Your task to perform on an android device: toggle notification dots Image 0: 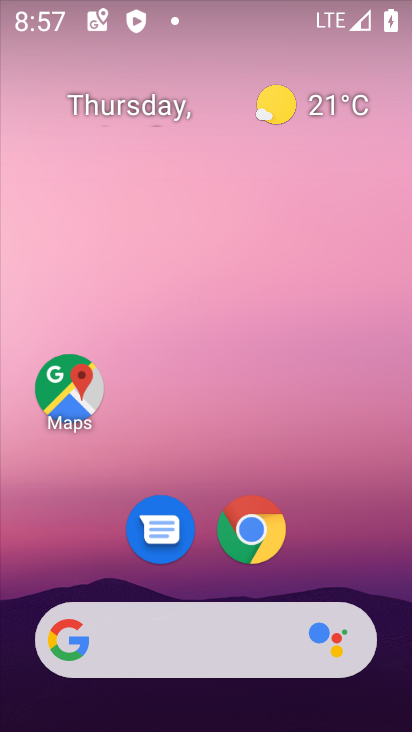
Step 0: drag from (185, 709) to (307, 35)
Your task to perform on an android device: toggle notification dots Image 1: 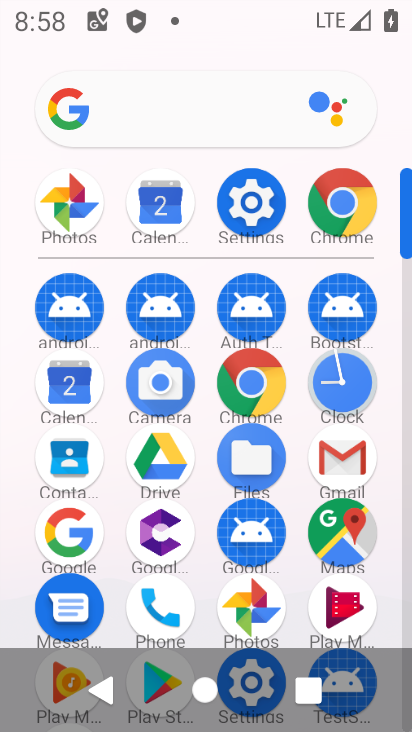
Step 1: click (234, 203)
Your task to perform on an android device: toggle notification dots Image 2: 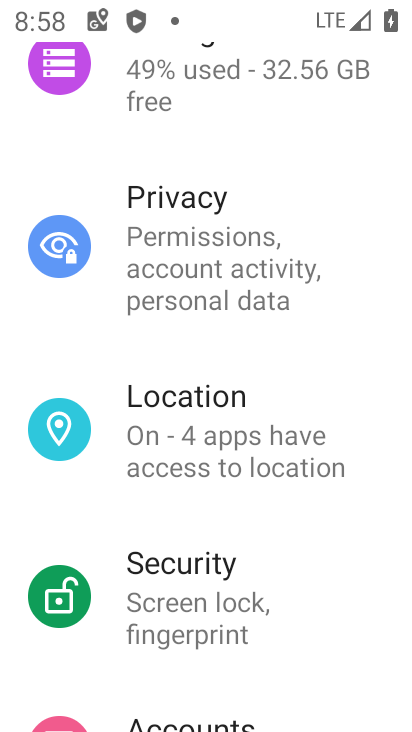
Step 2: drag from (256, 564) to (214, 57)
Your task to perform on an android device: toggle notification dots Image 3: 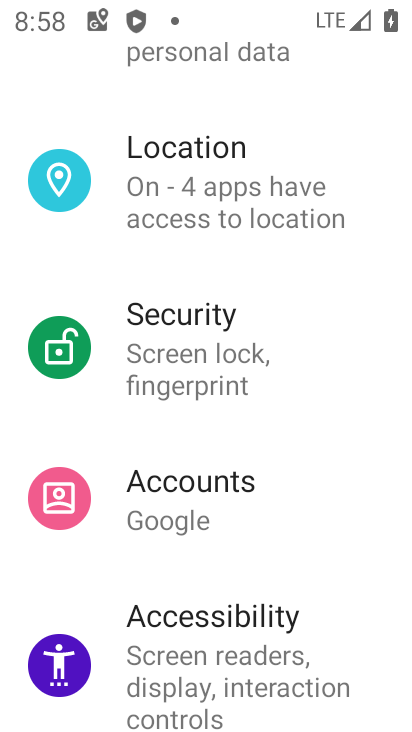
Step 3: drag from (273, 155) to (204, 618)
Your task to perform on an android device: toggle notification dots Image 4: 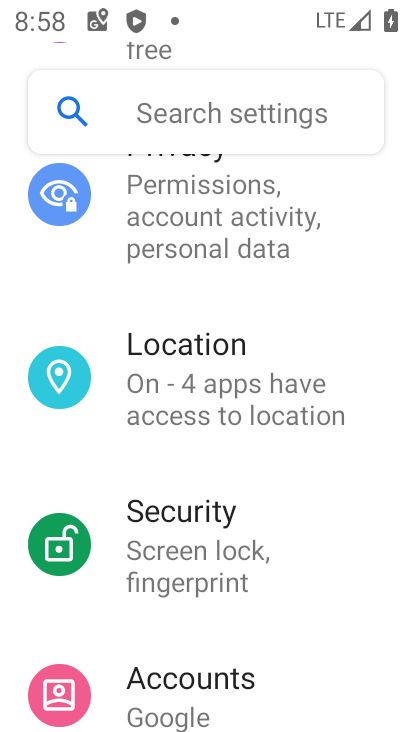
Step 4: drag from (311, 199) to (268, 642)
Your task to perform on an android device: toggle notification dots Image 5: 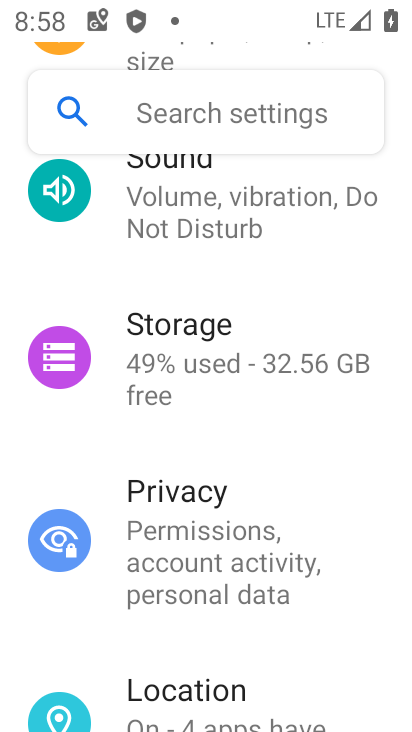
Step 5: drag from (320, 246) to (251, 670)
Your task to perform on an android device: toggle notification dots Image 6: 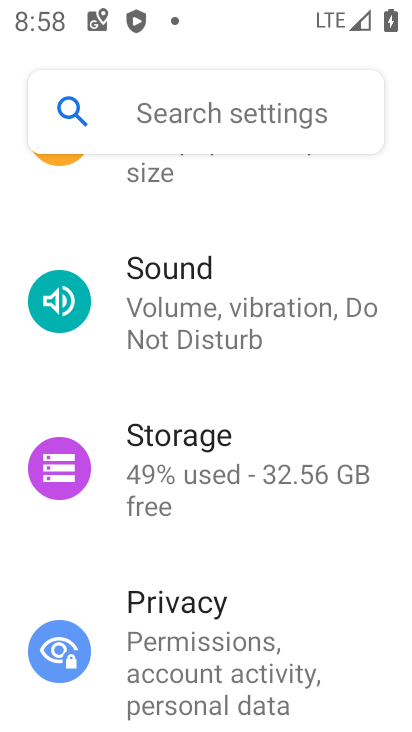
Step 6: drag from (293, 202) to (246, 644)
Your task to perform on an android device: toggle notification dots Image 7: 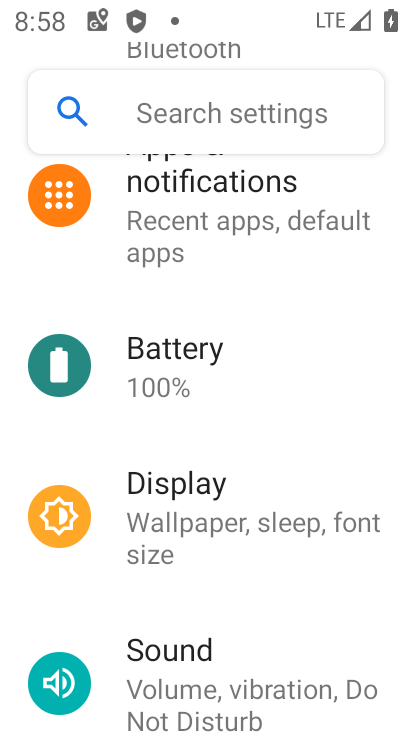
Step 7: click (310, 199)
Your task to perform on an android device: toggle notification dots Image 8: 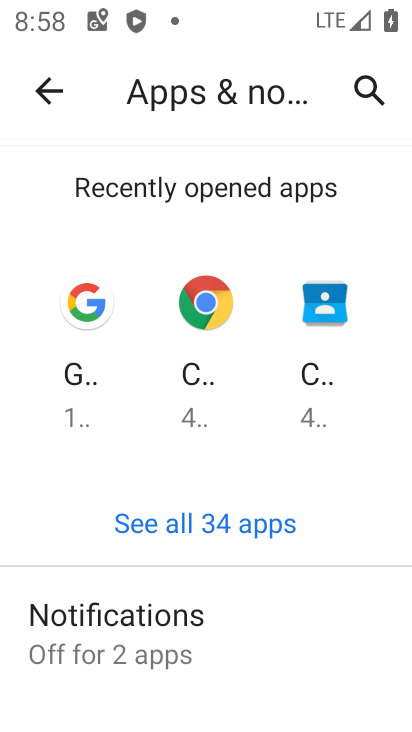
Step 8: click (238, 624)
Your task to perform on an android device: toggle notification dots Image 9: 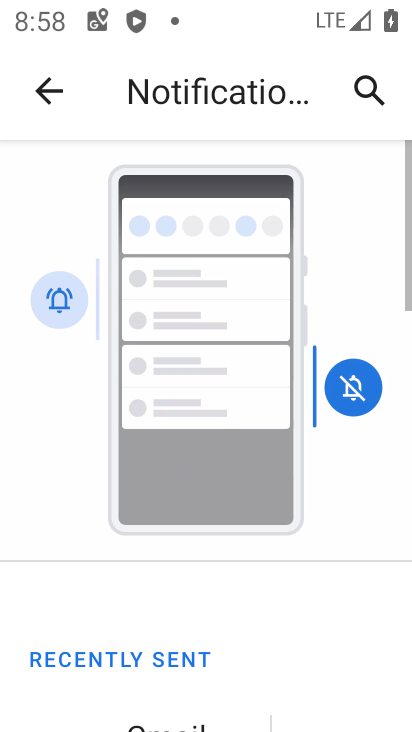
Step 9: drag from (209, 676) to (220, 79)
Your task to perform on an android device: toggle notification dots Image 10: 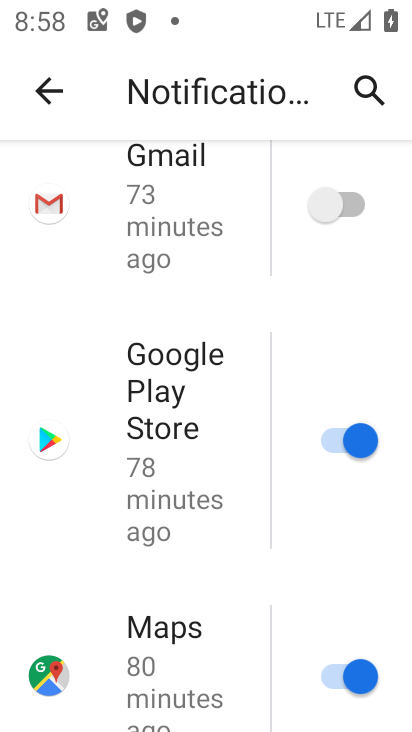
Step 10: drag from (289, 623) to (249, 0)
Your task to perform on an android device: toggle notification dots Image 11: 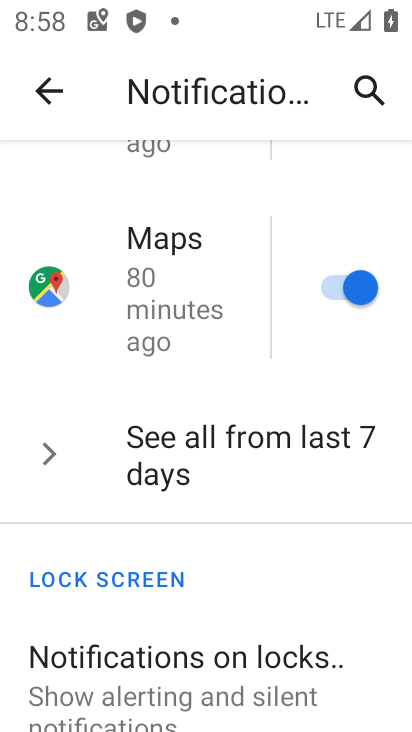
Step 11: drag from (267, 500) to (314, 18)
Your task to perform on an android device: toggle notification dots Image 12: 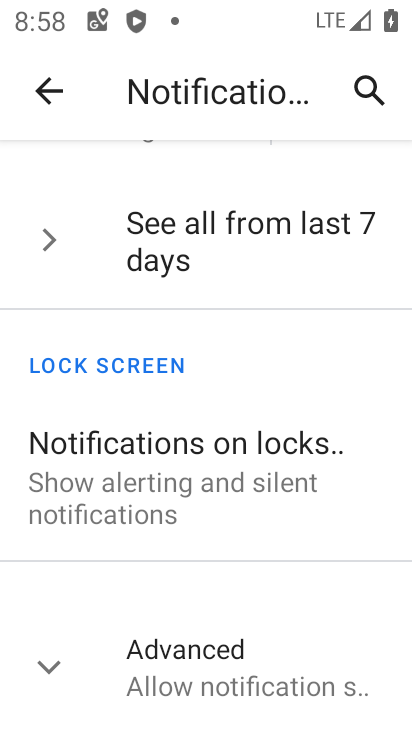
Step 12: click (298, 677)
Your task to perform on an android device: toggle notification dots Image 13: 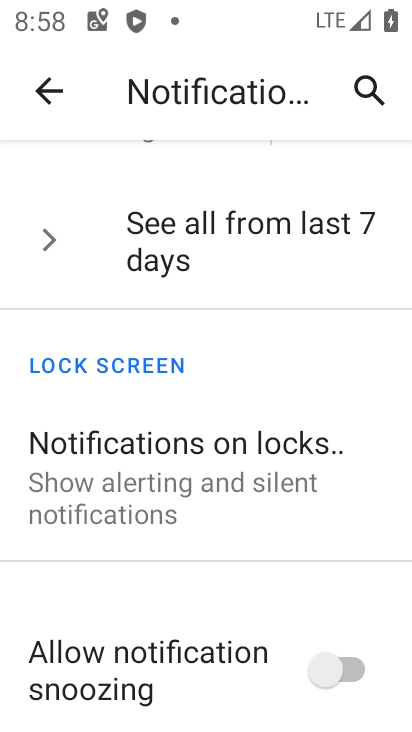
Step 13: drag from (256, 649) to (263, 54)
Your task to perform on an android device: toggle notification dots Image 14: 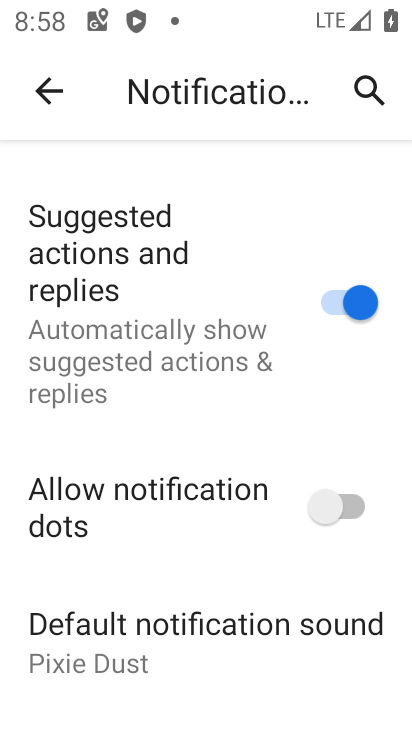
Step 14: click (354, 517)
Your task to perform on an android device: toggle notification dots Image 15: 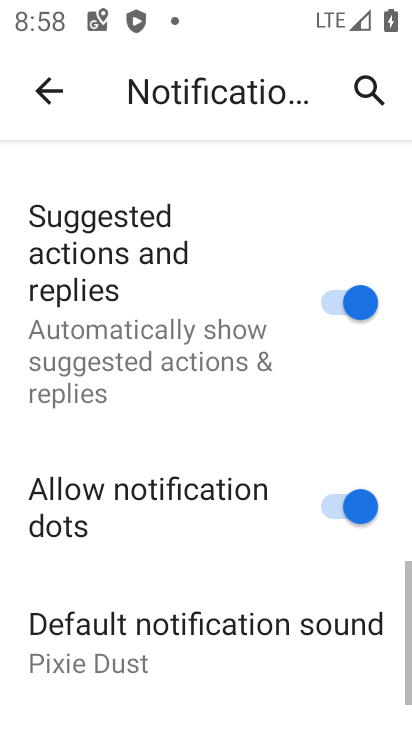
Step 15: task complete